Your task to perform on an android device: turn on javascript in the chrome app Image 0: 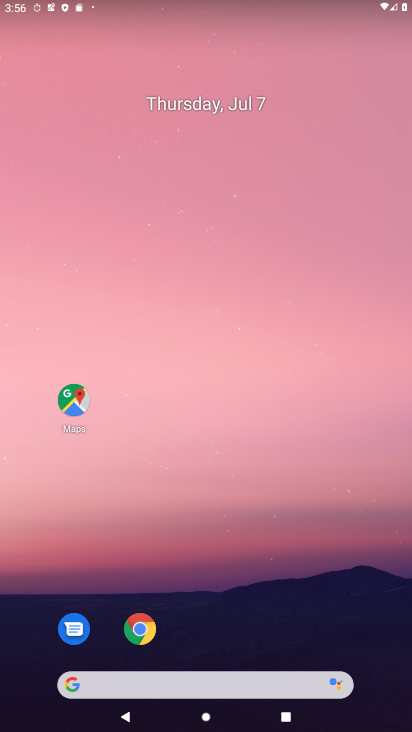
Step 0: click (196, 650)
Your task to perform on an android device: turn on javascript in the chrome app Image 1: 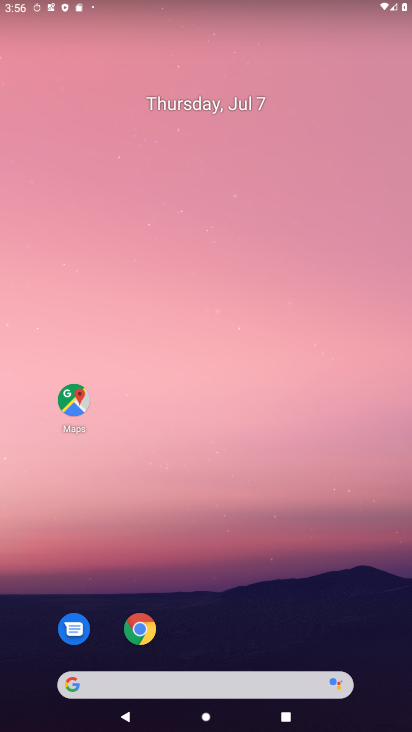
Step 1: drag from (228, 561) to (274, 16)
Your task to perform on an android device: turn on javascript in the chrome app Image 2: 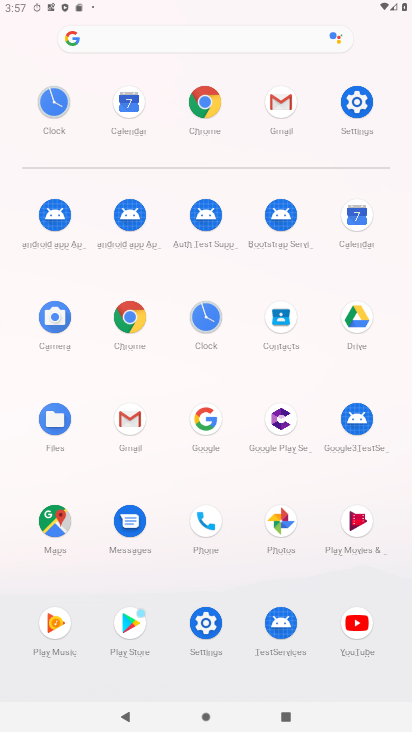
Step 2: click (211, 111)
Your task to perform on an android device: turn on javascript in the chrome app Image 3: 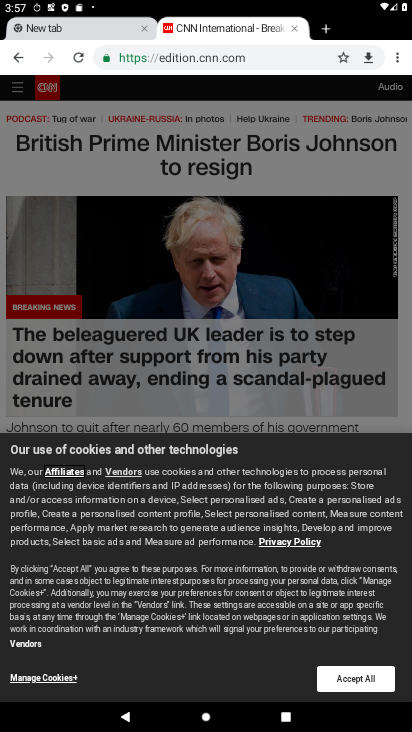
Step 3: click (397, 60)
Your task to perform on an android device: turn on javascript in the chrome app Image 4: 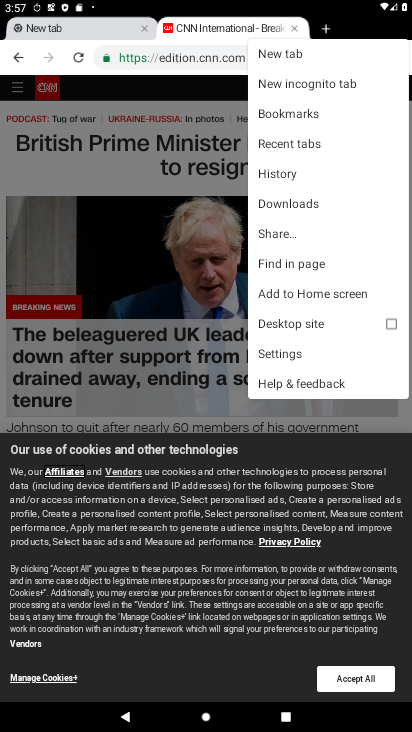
Step 4: click (281, 356)
Your task to perform on an android device: turn on javascript in the chrome app Image 5: 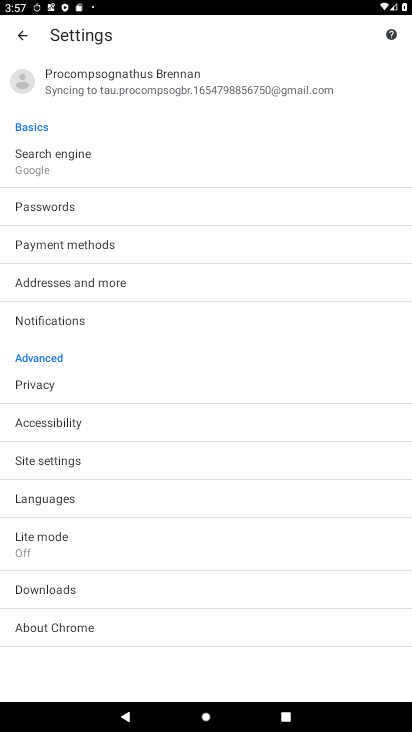
Step 5: drag from (66, 589) to (151, 46)
Your task to perform on an android device: turn on javascript in the chrome app Image 6: 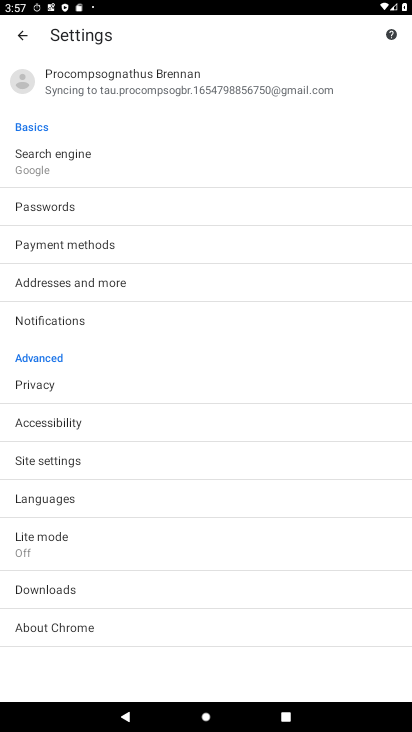
Step 6: click (50, 455)
Your task to perform on an android device: turn on javascript in the chrome app Image 7: 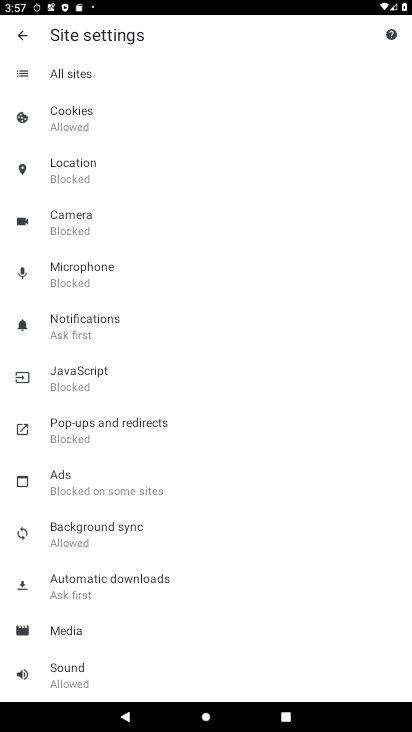
Step 7: click (71, 386)
Your task to perform on an android device: turn on javascript in the chrome app Image 8: 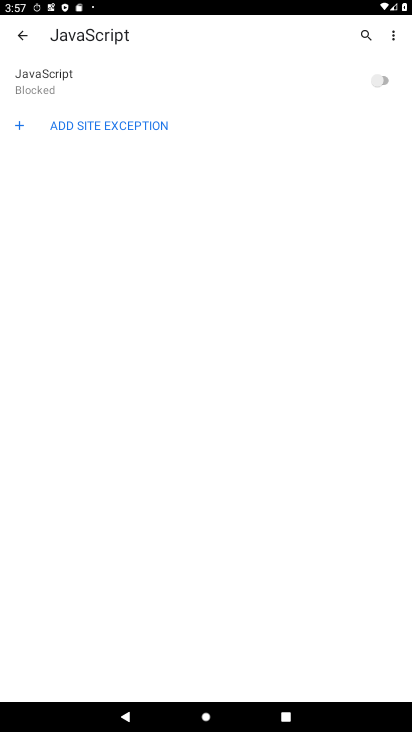
Step 8: click (382, 84)
Your task to perform on an android device: turn on javascript in the chrome app Image 9: 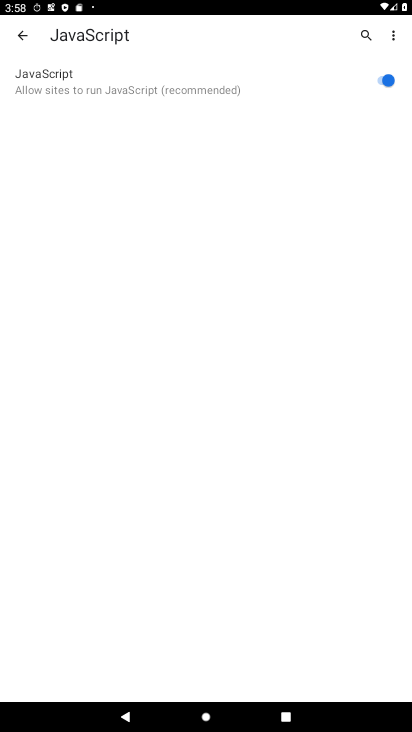
Step 9: task complete